Your task to perform on an android device: Open battery settings Image 0: 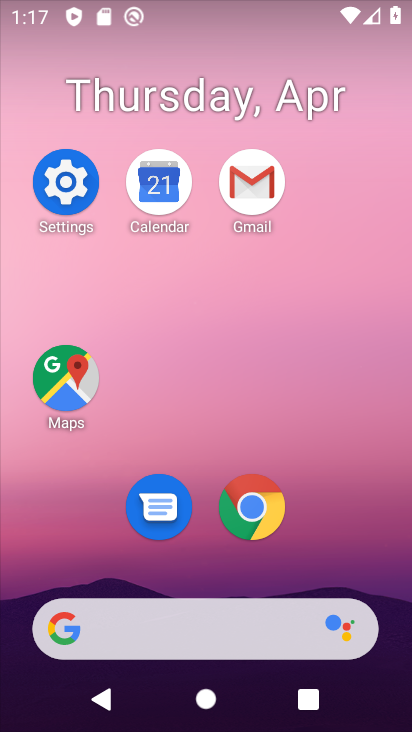
Step 0: click (77, 177)
Your task to perform on an android device: Open battery settings Image 1: 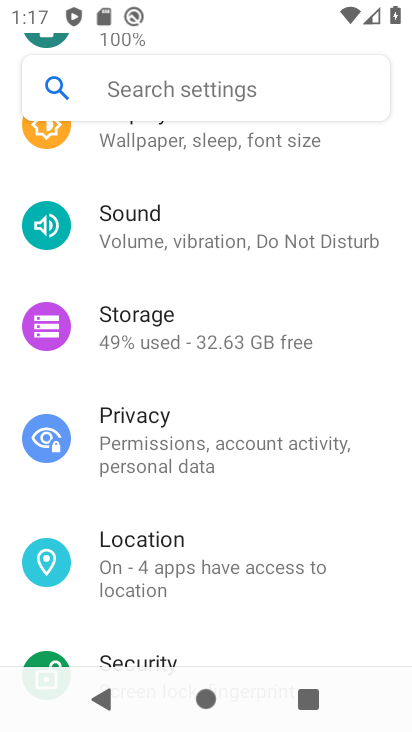
Step 1: drag from (270, 559) to (245, 136)
Your task to perform on an android device: Open battery settings Image 2: 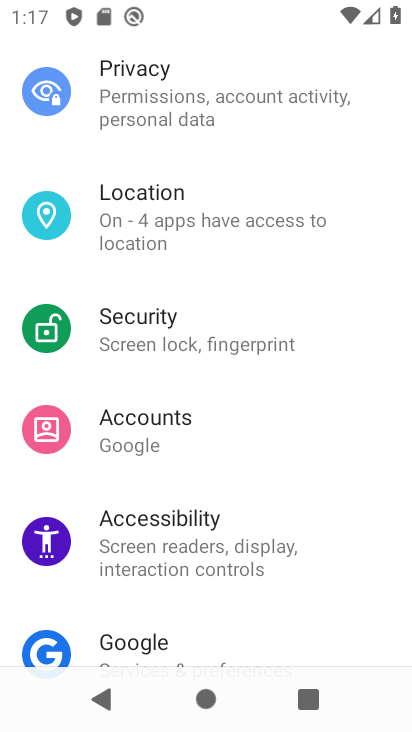
Step 2: drag from (277, 262) to (277, 680)
Your task to perform on an android device: Open battery settings Image 3: 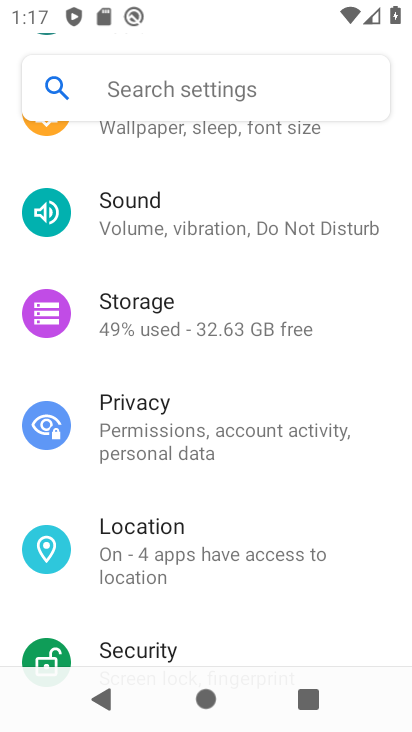
Step 3: drag from (289, 147) to (286, 730)
Your task to perform on an android device: Open battery settings Image 4: 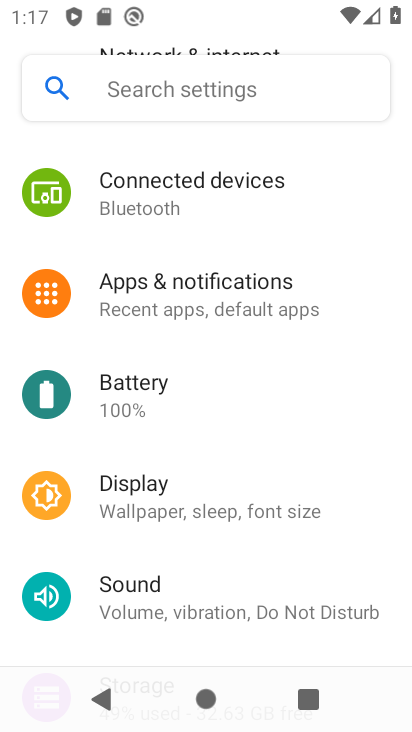
Step 4: click (216, 369)
Your task to perform on an android device: Open battery settings Image 5: 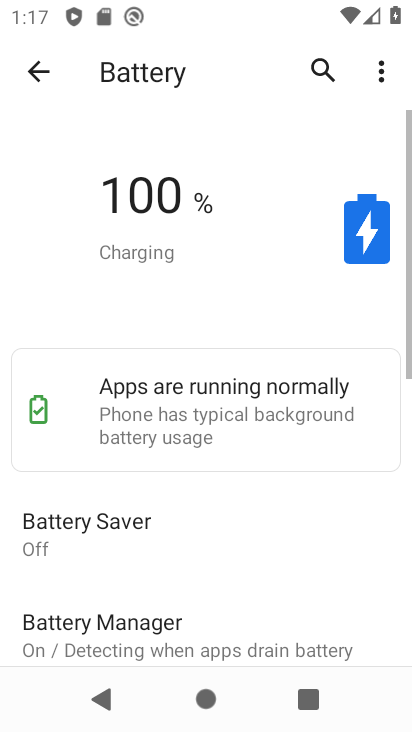
Step 5: task complete